Your task to perform on an android device: Open internet settings Image 0: 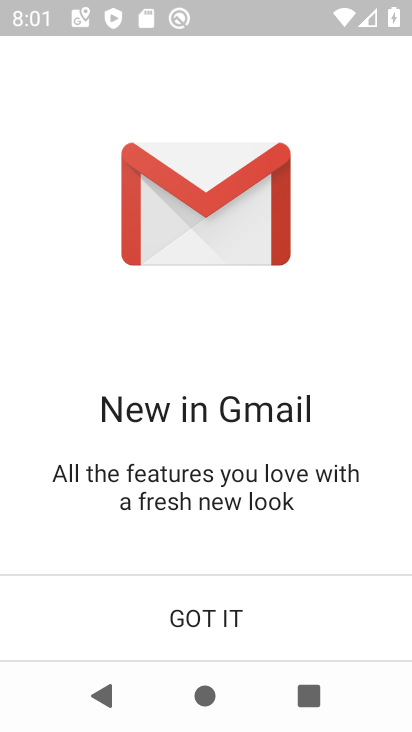
Step 0: click (209, 609)
Your task to perform on an android device: Open internet settings Image 1: 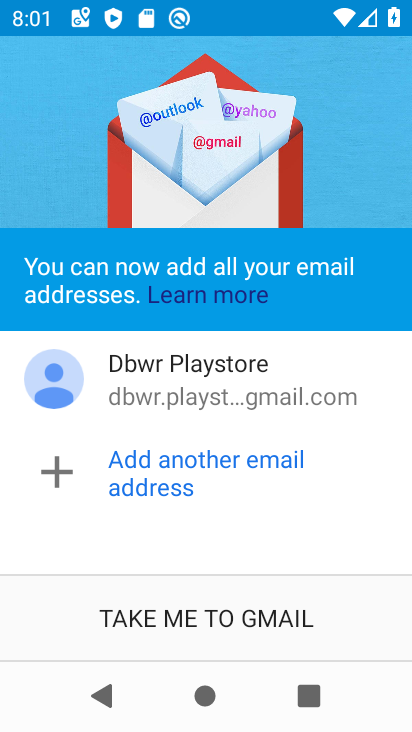
Step 1: click (213, 621)
Your task to perform on an android device: Open internet settings Image 2: 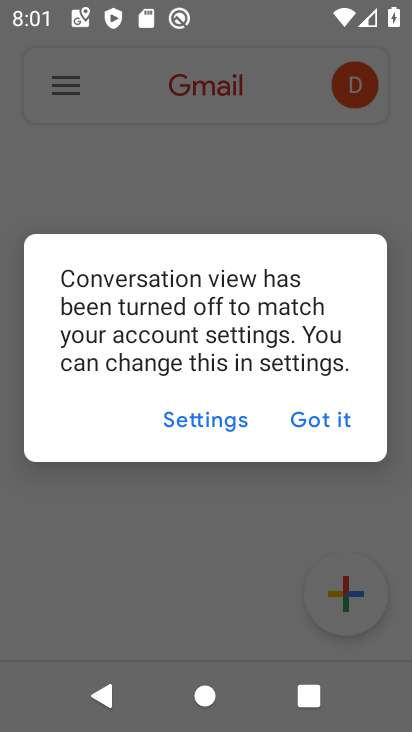
Step 2: press home button
Your task to perform on an android device: Open internet settings Image 3: 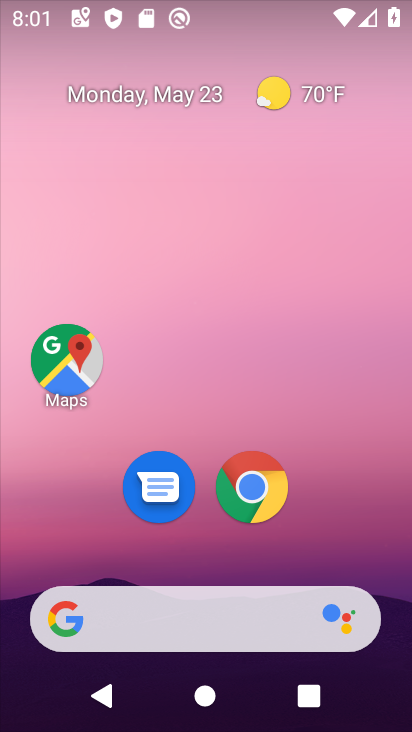
Step 3: drag from (213, 578) to (233, 149)
Your task to perform on an android device: Open internet settings Image 4: 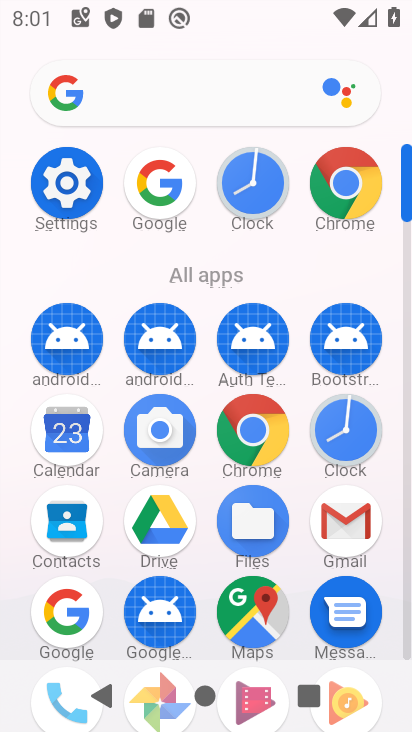
Step 4: click (76, 189)
Your task to perform on an android device: Open internet settings Image 5: 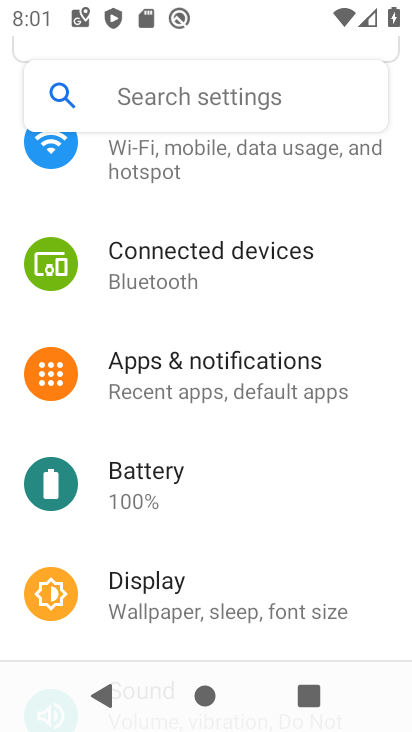
Step 5: drag from (178, 212) to (188, 493)
Your task to perform on an android device: Open internet settings Image 6: 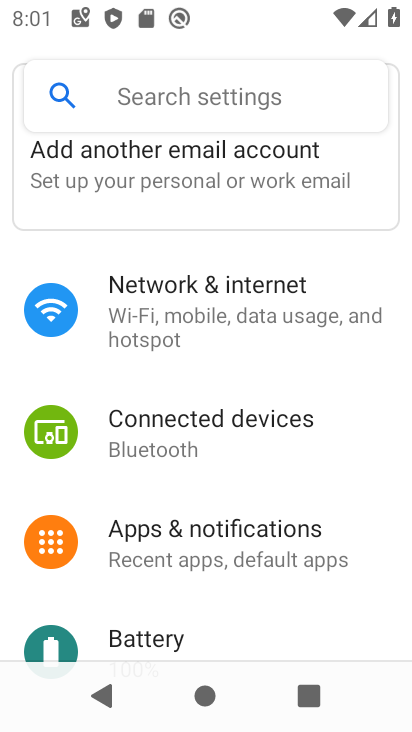
Step 6: click (235, 283)
Your task to perform on an android device: Open internet settings Image 7: 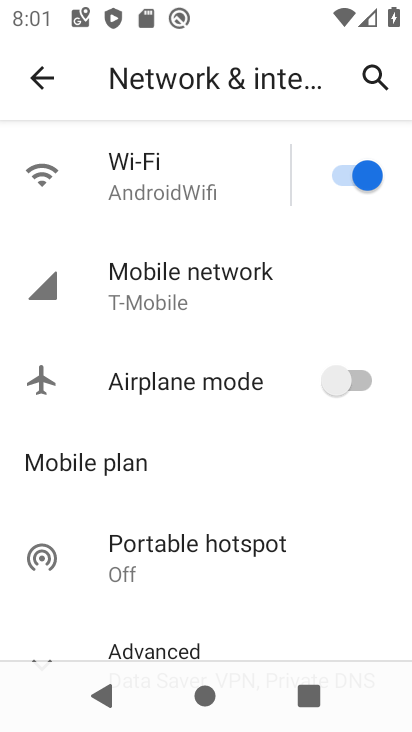
Step 7: task complete